Your task to perform on an android device: What's on my calendar today? Image 0: 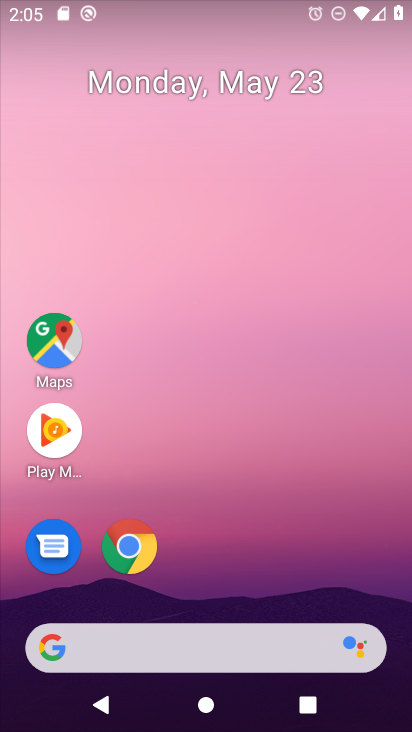
Step 0: drag from (223, 600) to (227, 69)
Your task to perform on an android device: What's on my calendar today? Image 1: 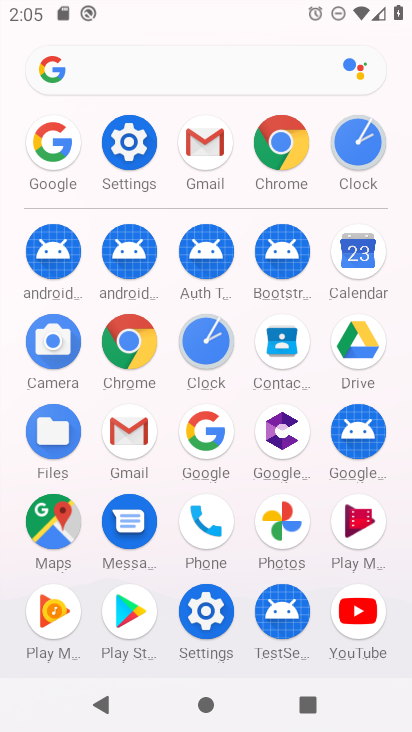
Step 1: click (361, 267)
Your task to perform on an android device: What's on my calendar today? Image 2: 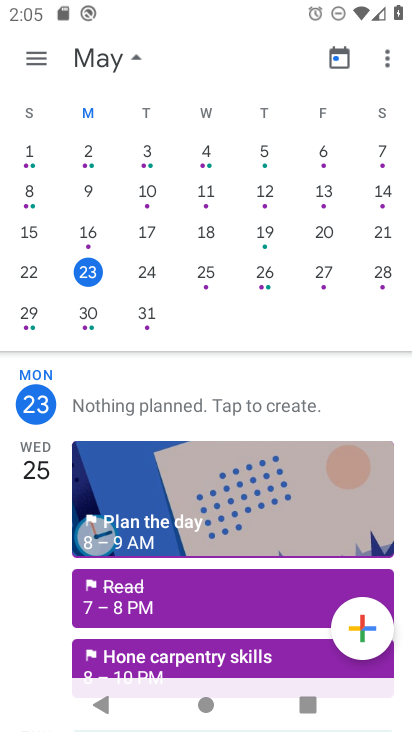
Step 2: task complete